Your task to perform on an android device: open wifi settings Image 0: 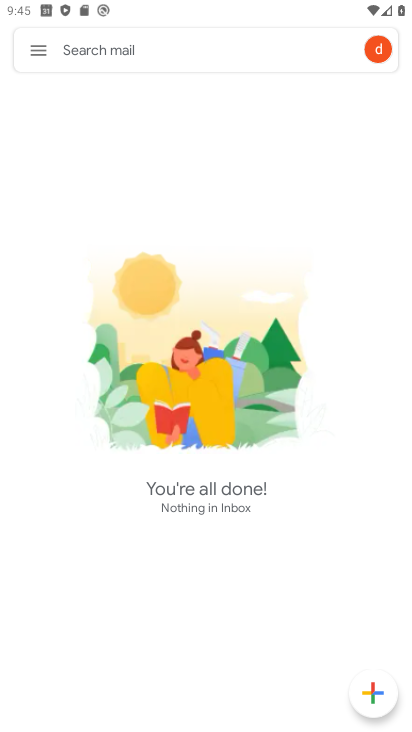
Step 0: press home button
Your task to perform on an android device: open wifi settings Image 1: 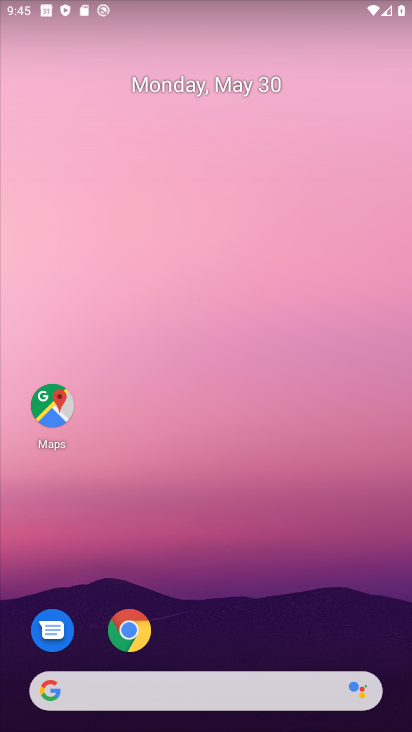
Step 1: drag from (282, 625) to (265, 160)
Your task to perform on an android device: open wifi settings Image 2: 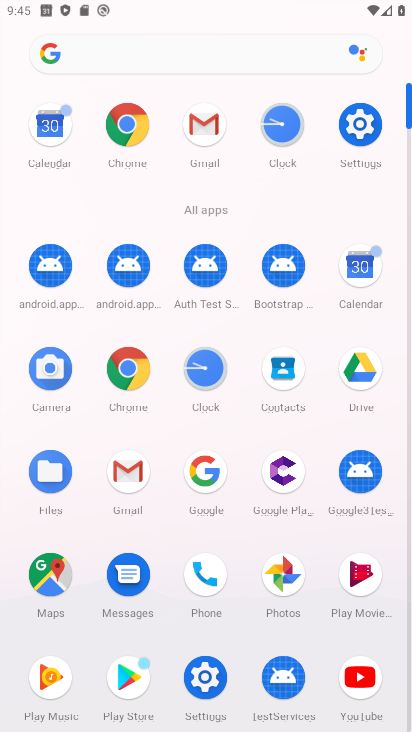
Step 2: click (350, 143)
Your task to perform on an android device: open wifi settings Image 3: 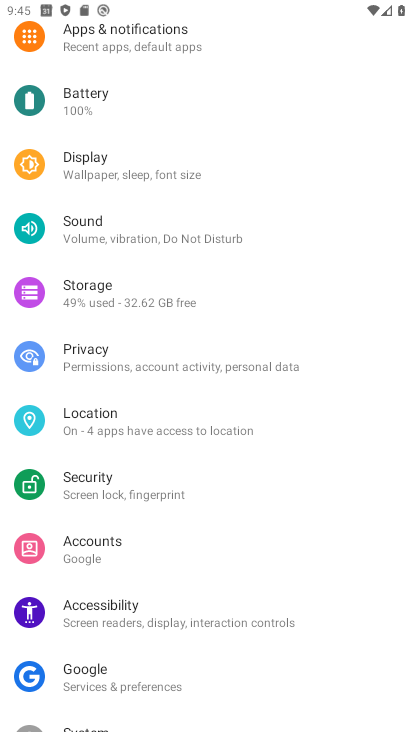
Step 3: drag from (203, 170) to (301, 693)
Your task to perform on an android device: open wifi settings Image 4: 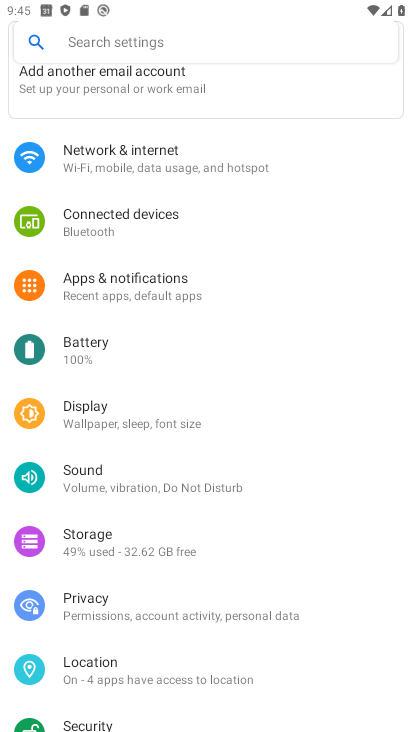
Step 4: click (256, 164)
Your task to perform on an android device: open wifi settings Image 5: 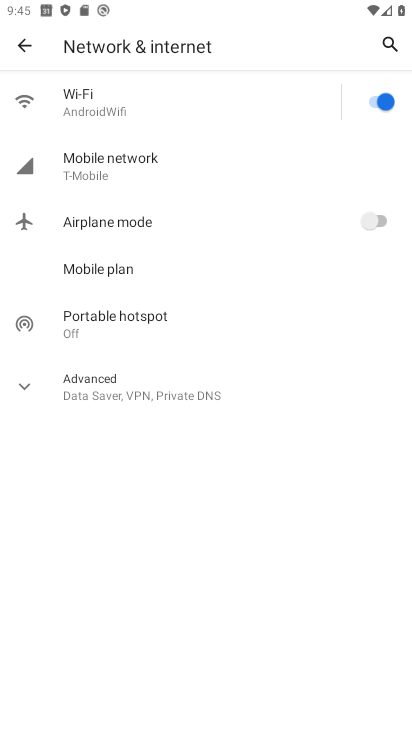
Step 5: task complete